Your task to perform on an android device: toggle location history Image 0: 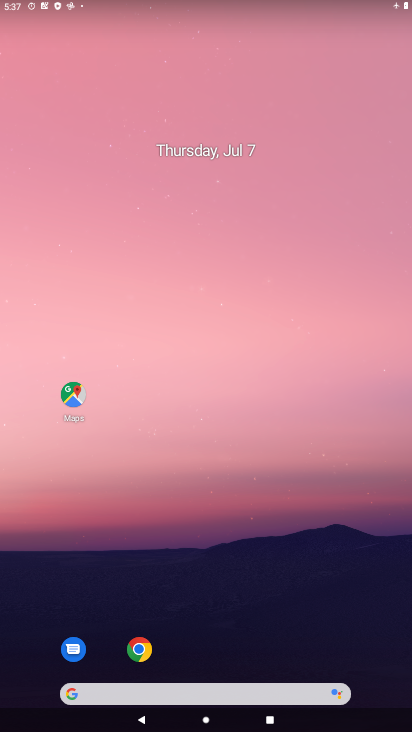
Step 0: drag from (346, 674) to (171, 25)
Your task to perform on an android device: toggle location history Image 1: 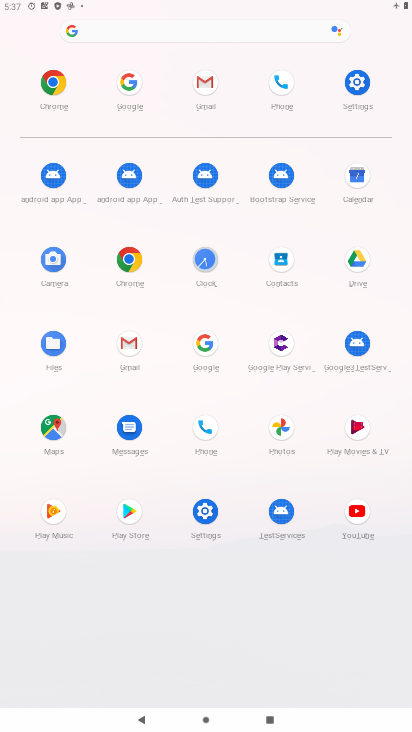
Step 1: click (363, 83)
Your task to perform on an android device: toggle location history Image 2: 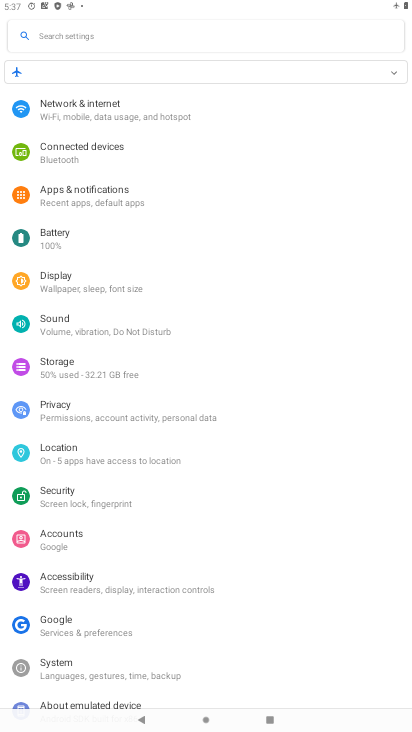
Step 2: click (59, 466)
Your task to perform on an android device: toggle location history Image 3: 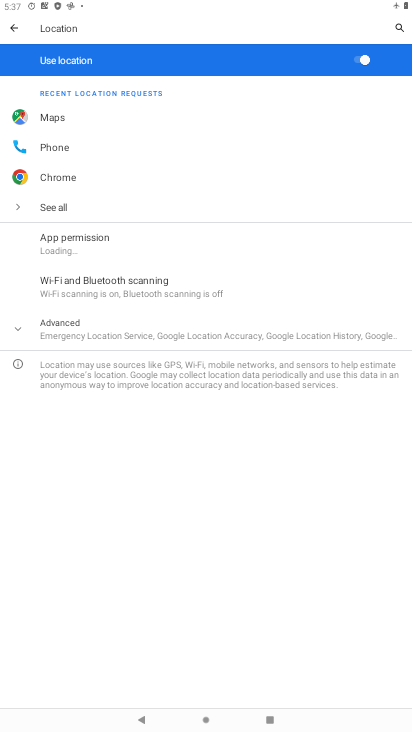
Step 3: click (122, 339)
Your task to perform on an android device: toggle location history Image 4: 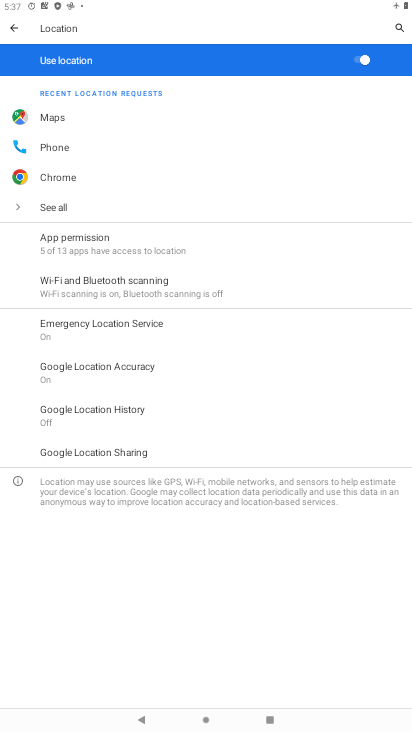
Step 4: click (110, 414)
Your task to perform on an android device: toggle location history Image 5: 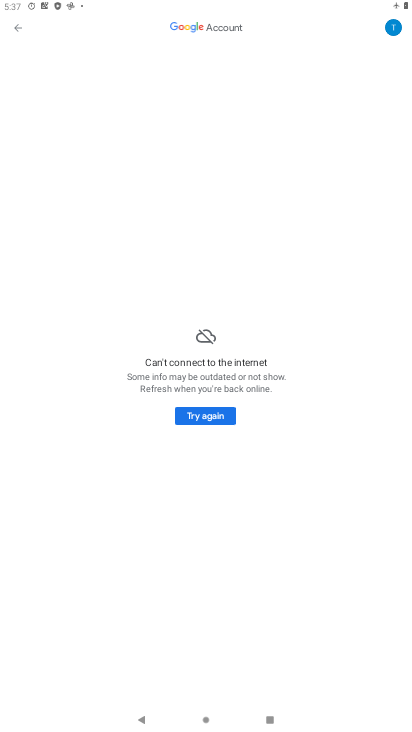
Step 5: task complete